Your task to perform on an android device: Search for a small bookcase on Ikea.com Image 0: 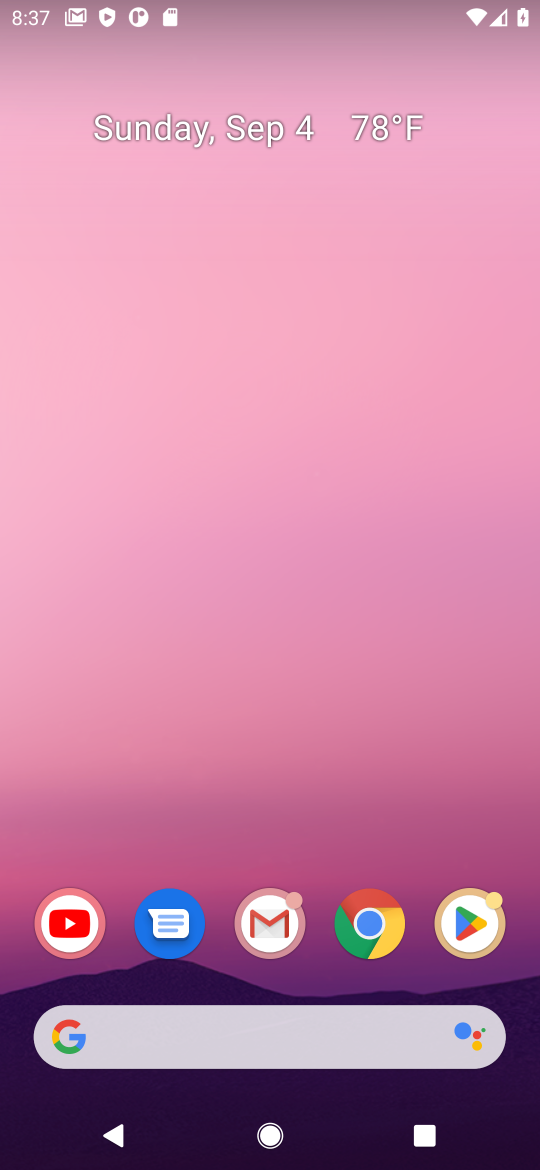
Step 0: click (149, 1025)
Your task to perform on an android device: Search for a small bookcase on Ikea.com Image 1: 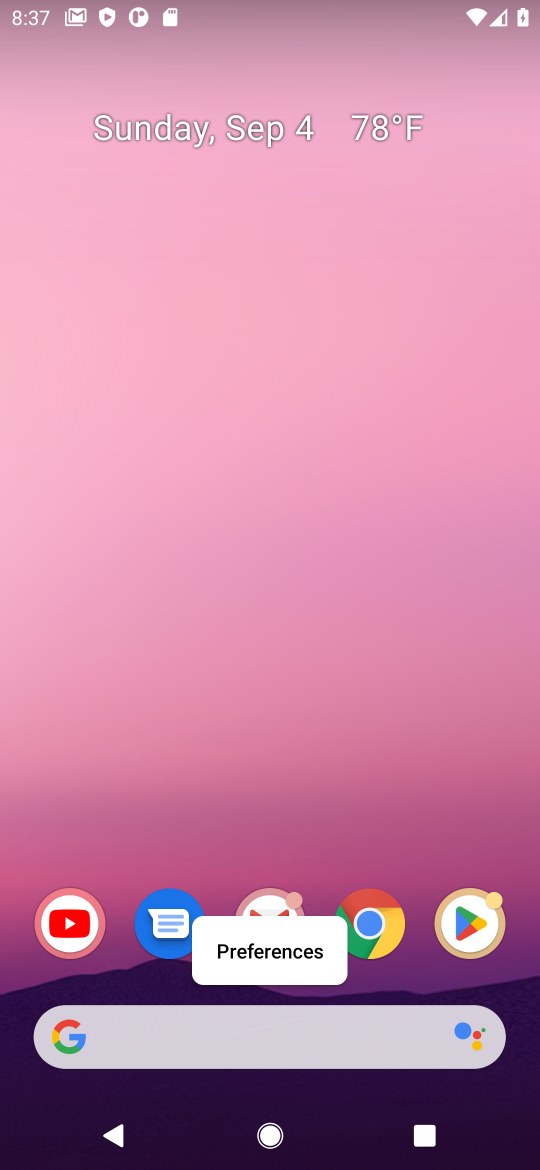
Step 1: click (364, 924)
Your task to perform on an android device: Search for a small bookcase on Ikea.com Image 2: 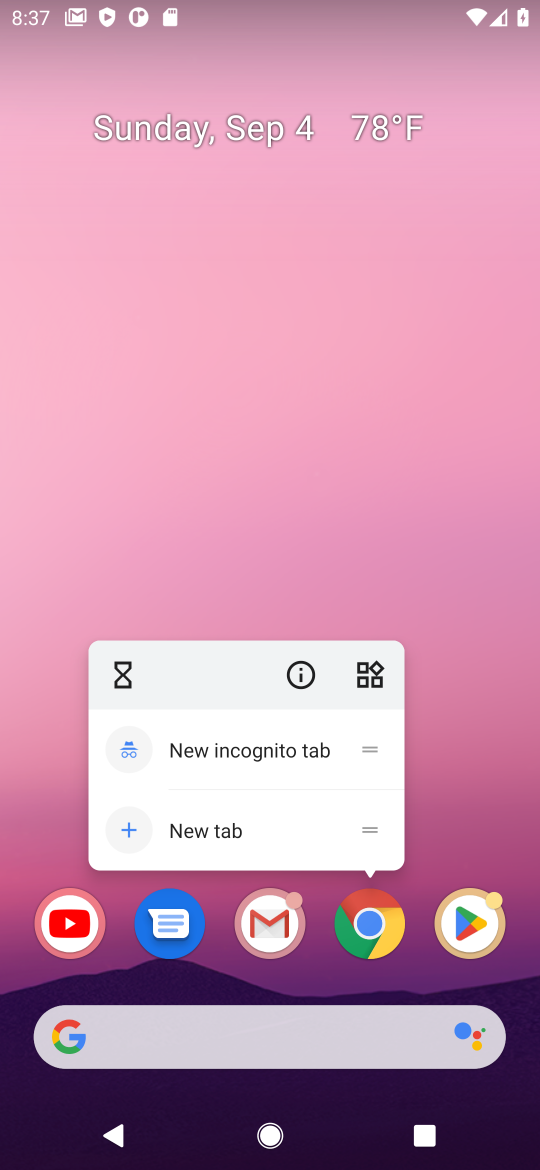
Step 2: click (380, 933)
Your task to perform on an android device: Search for a small bookcase on Ikea.com Image 3: 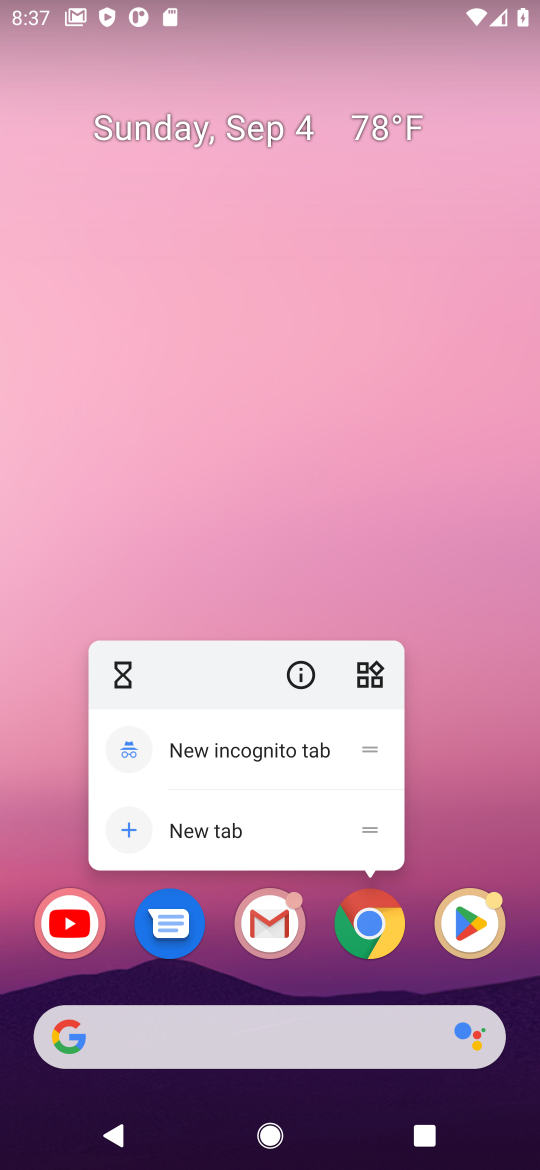
Step 3: click (381, 934)
Your task to perform on an android device: Search for a small bookcase on Ikea.com Image 4: 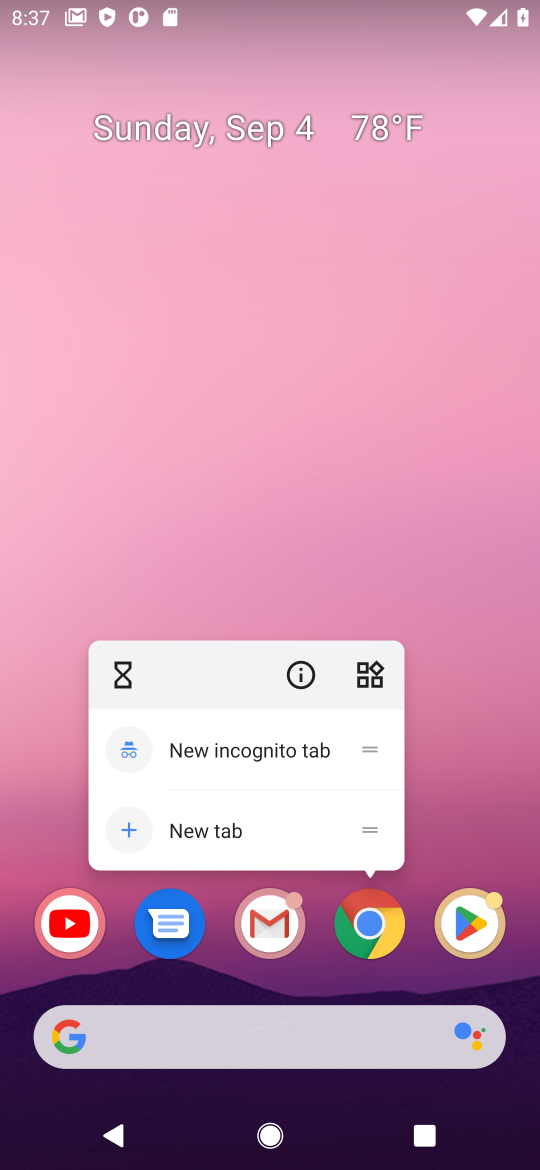
Step 4: click (365, 943)
Your task to perform on an android device: Search for a small bookcase on Ikea.com Image 5: 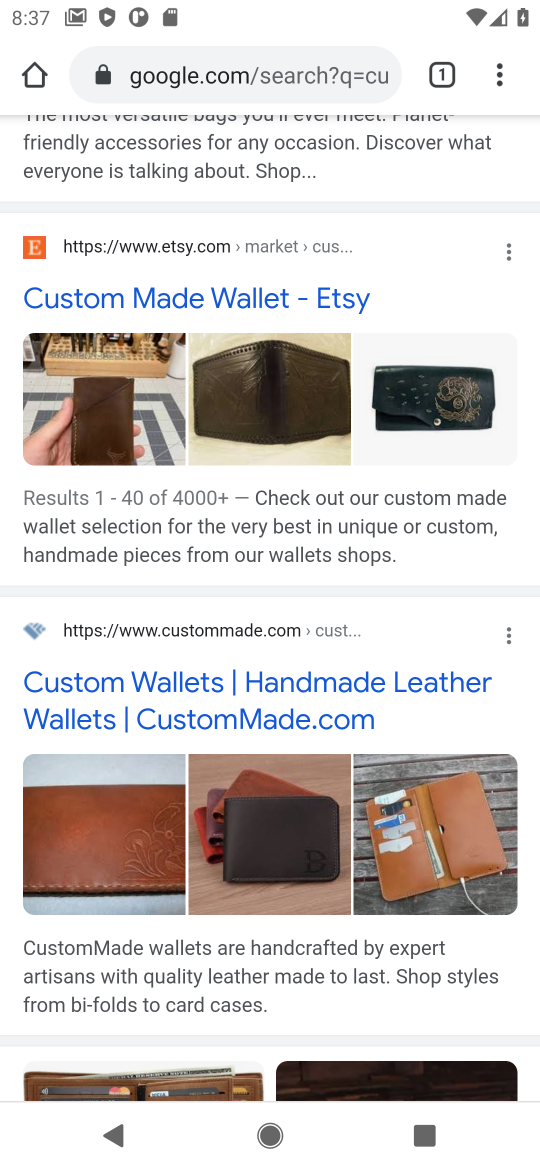
Step 5: click (225, 38)
Your task to perform on an android device: Search for a small bookcase on Ikea.com Image 6: 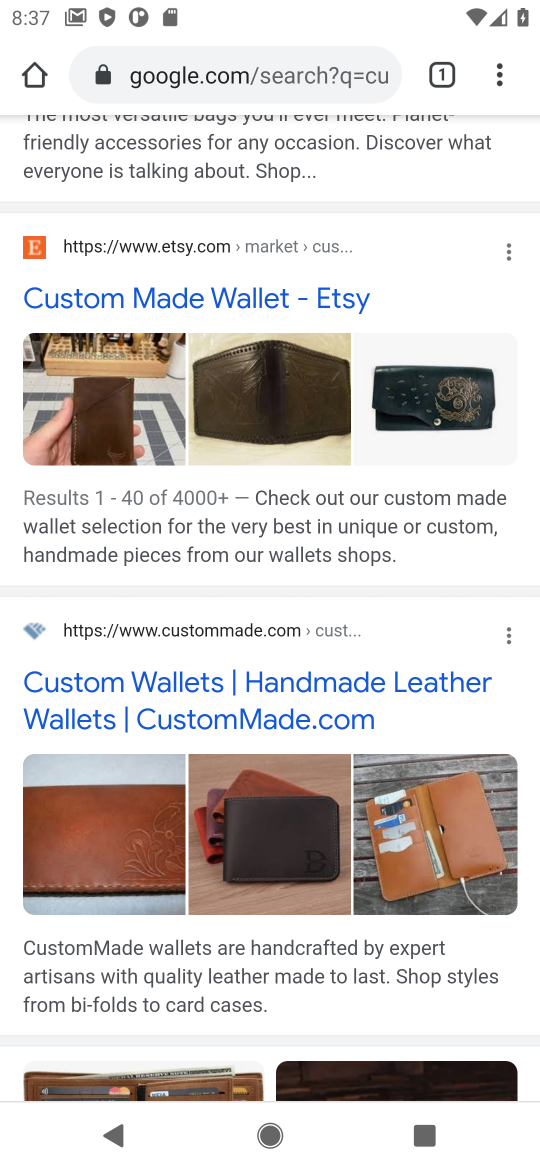
Step 6: click (212, 89)
Your task to perform on an android device: Search for a small bookcase on Ikea.com Image 7: 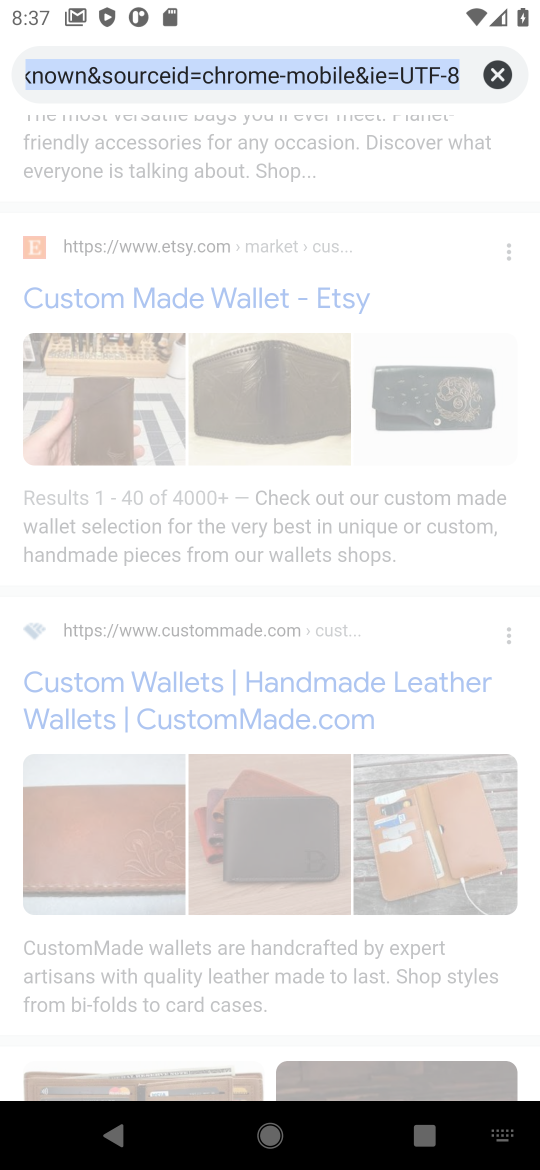
Step 7: click (205, 72)
Your task to perform on an android device: Search for a small bookcase on Ikea.com Image 8: 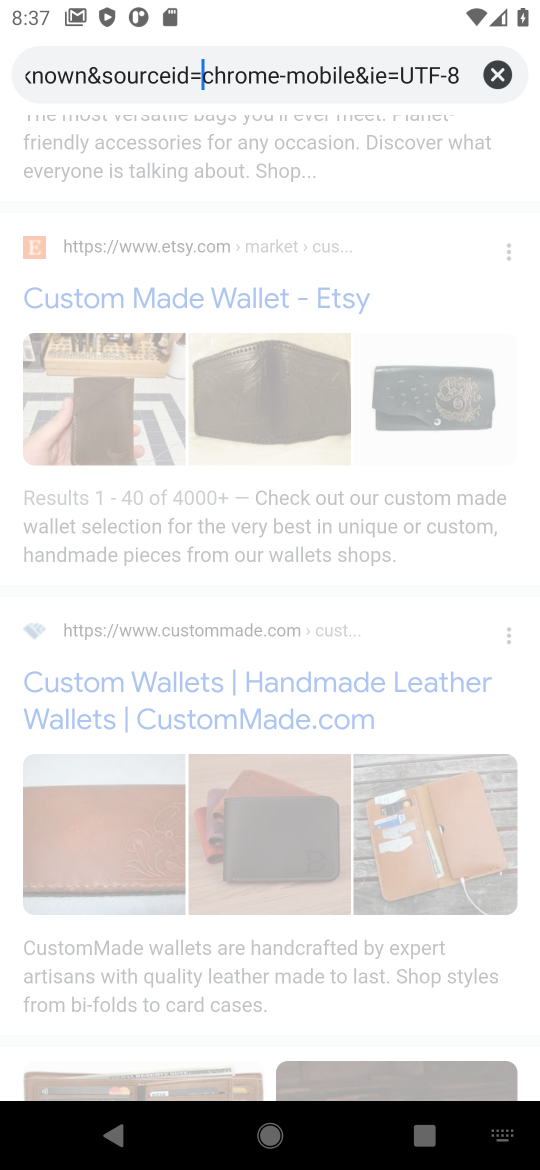
Step 8: click (501, 74)
Your task to perform on an android device: Search for a small bookcase on Ikea.com Image 9: 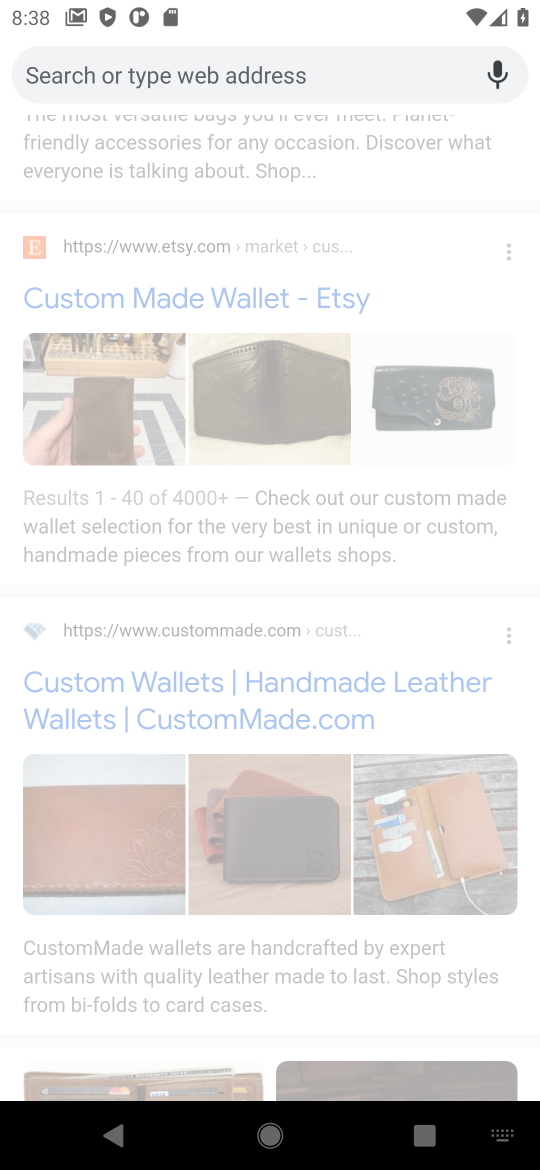
Step 9: type "small bookcase on Ikea.com"
Your task to perform on an android device: Search for a small bookcase on Ikea.com Image 10: 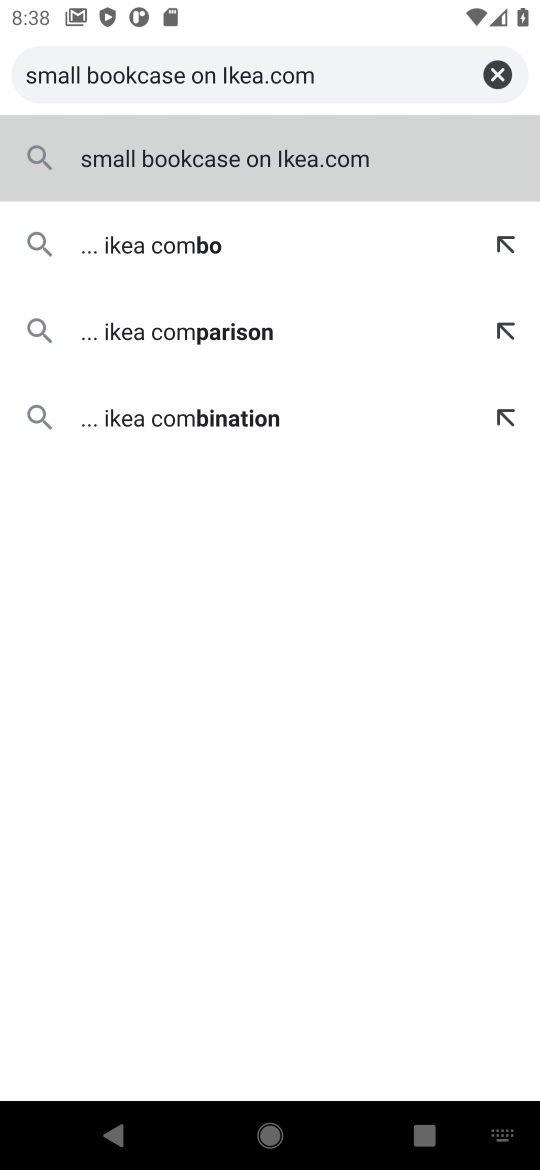
Step 10: click (298, 160)
Your task to perform on an android device: Search for a small bookcase on Ikea.com Image 11: 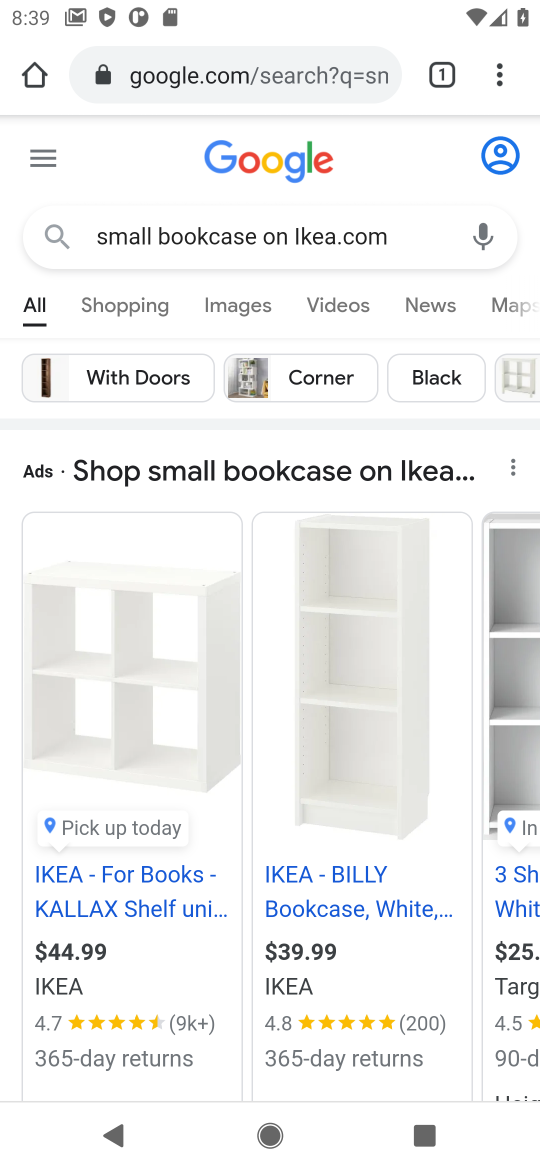
Step 11: click (209, 520)
Your task to perform on an android device: Search for a small bookcase on Ikea.com Image 12: 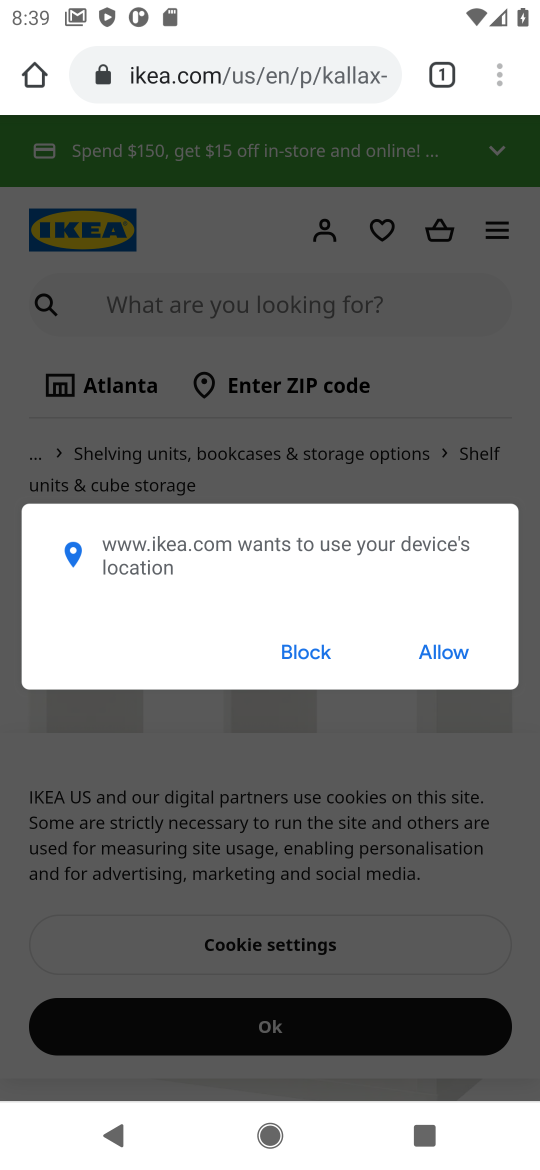
Step 12: task complete